Your task to perform on an android device: Open the phone app and click the voicemail tab. Image 0: 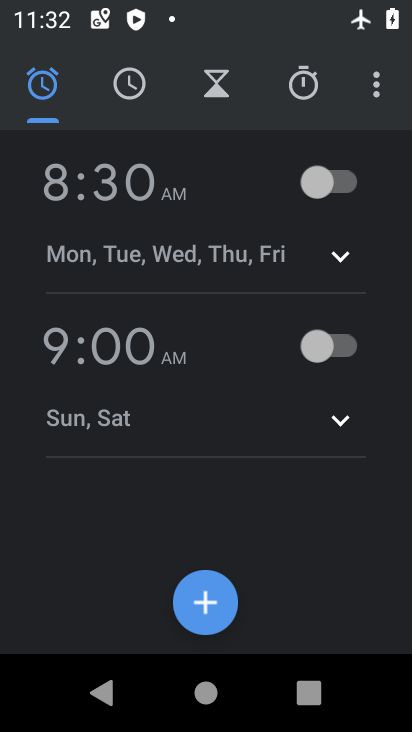
Step 0: press home button
Your task to perform on an android device: Open the phone app and click the voicemail tab. Image 1: 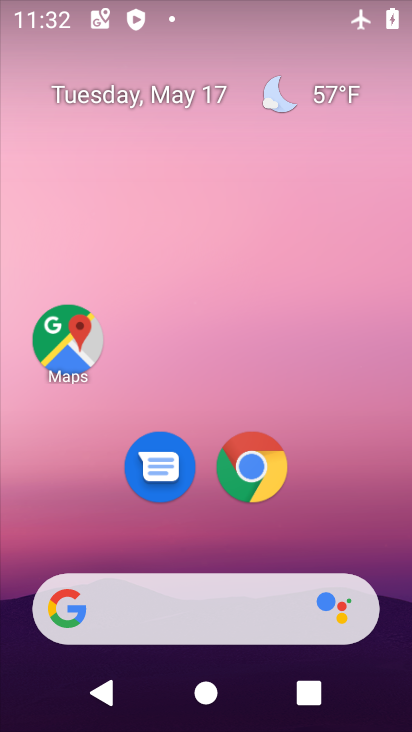
Step 1: drag from (241, 653) to (190, 104)
Your task to perform on an android device: Open the phone app and click the voicemail tab. Image 2: 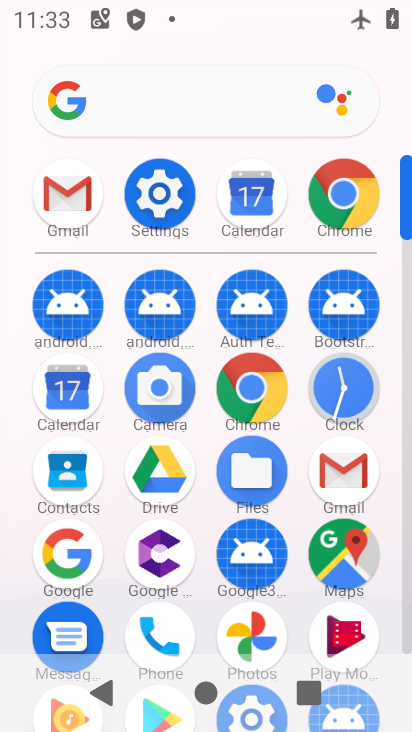
Step 2: click (166, 612)
Your task to perform on an android device: Open the phone app and click the voicemail tab. Image 3: 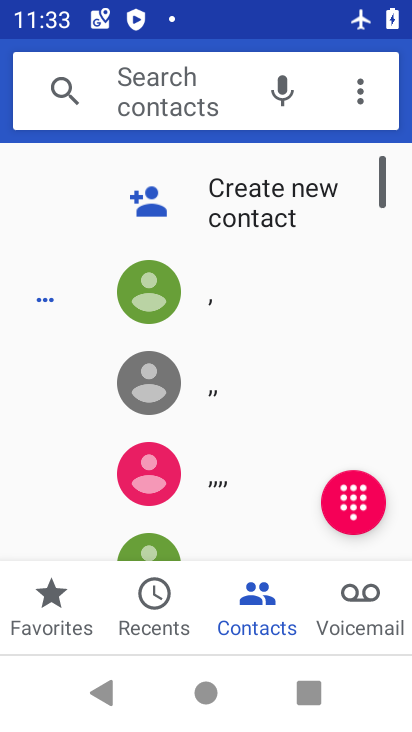
Step 3: click (352, 621)
Your task to perform on an android device: Open the phone app and click the voicemail tab. Image 4: 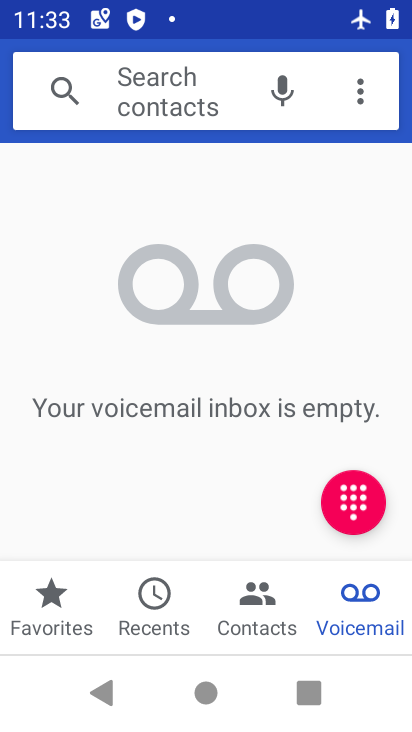
Step 4: task complete